Your task to perform on an android device: Open internet settings Image 0: 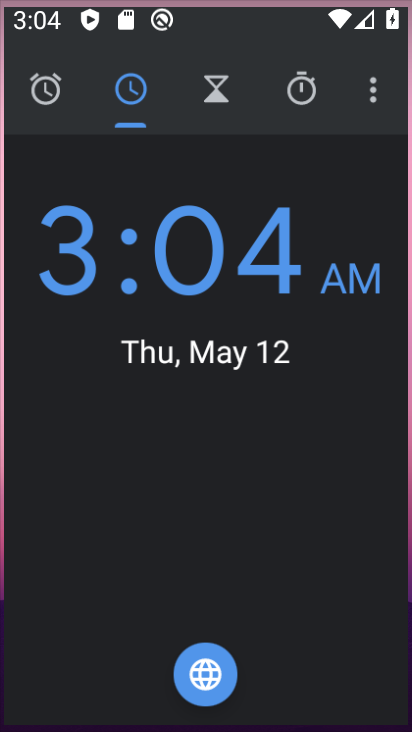
Step 0: click (240, 639)
Your task to perform on an android device: Open internet settings Image 1: 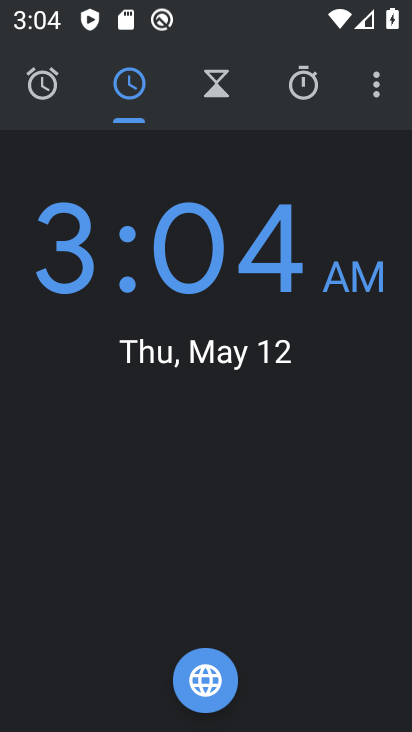
Step 1: press home button
Your task to perform on an android device: Open internet settings Image 2: 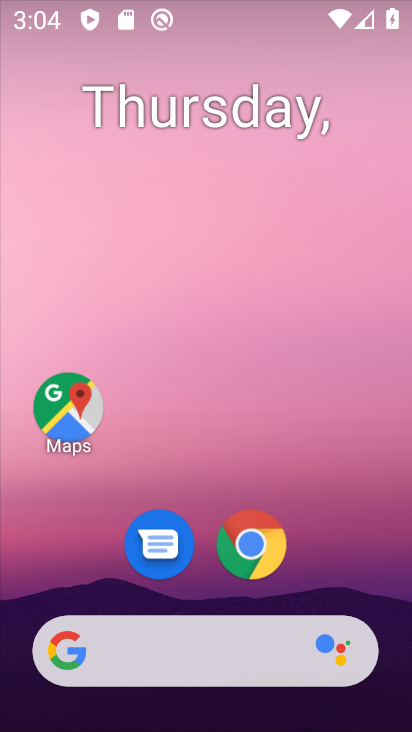
Step 2: drag from (332, 507) to (359, 20)
Your task to perform on an android device: Open internet settings Image 3: 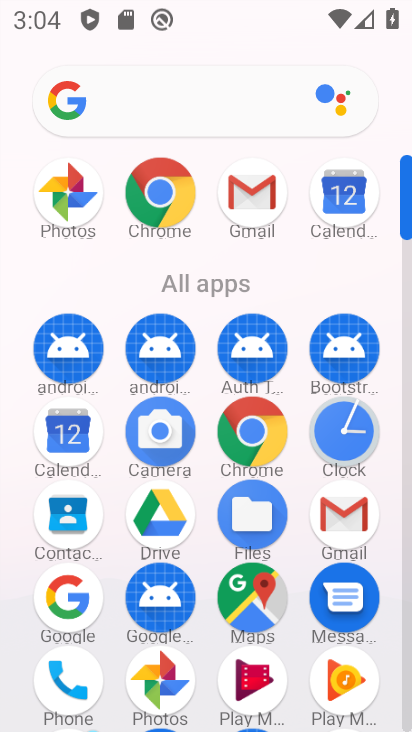
Step 3: drag from (343, 525) to (336, 109)
Your task to perform on an android device: Open internet settings Image 4: 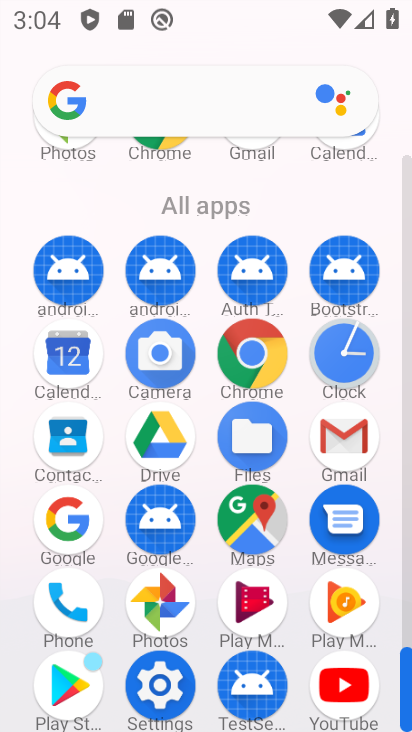
Step 4: click (167, 677)
Your task to perform on an android device: Open internet settings Image 5: 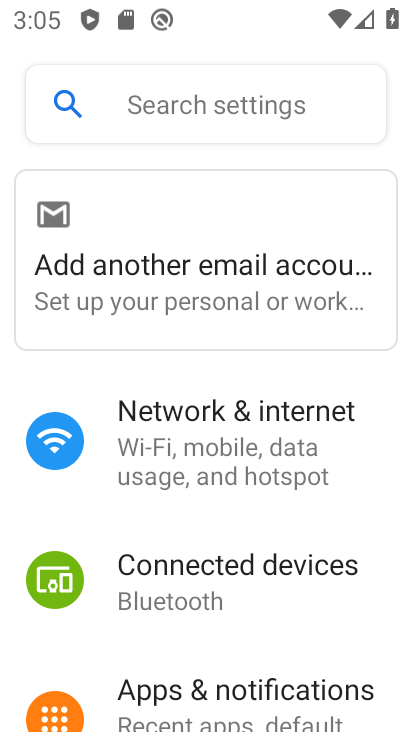
Step 5: click (206, 429)
Your task to perform on an android device: Open internet settings Image 6: 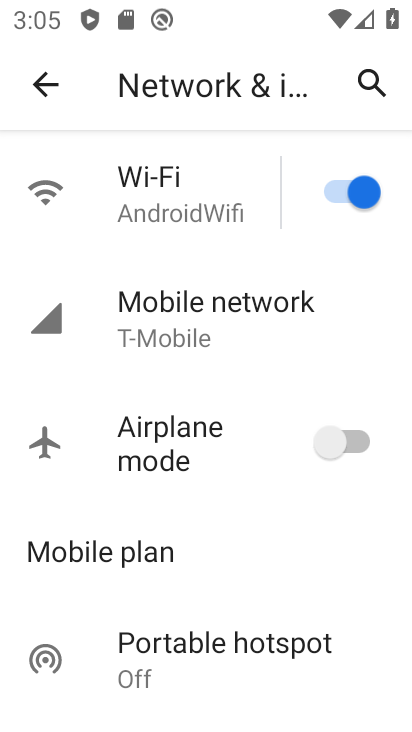
Step 6: drag from (190, 478) to (174, 216)
Your task to perform on an android device: Open internet settings Image 7: 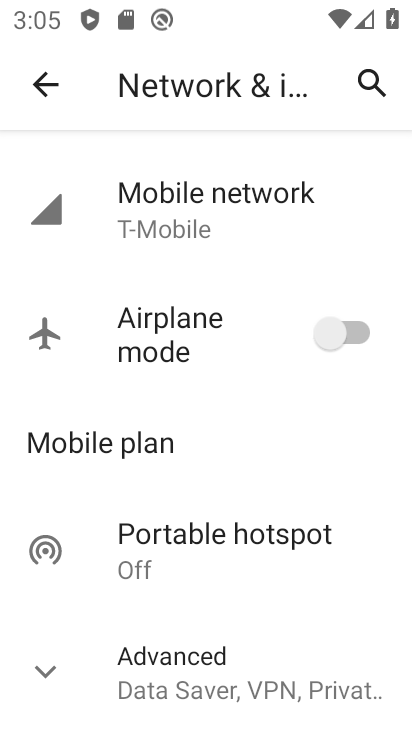
Step 7: drag from (188, 298) to (212, 650)
Your task to perform on an android device: Open internet settings Image 8: 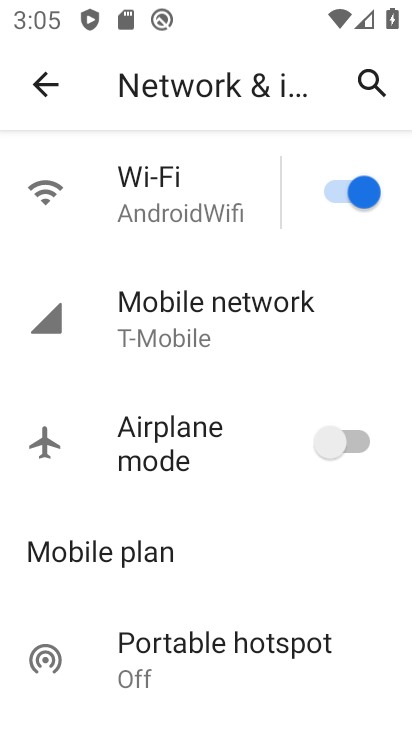
Step 8: drag from (244, 584) to (230, 112)
Your task to perform on an android device: Open internet settings Image 9: 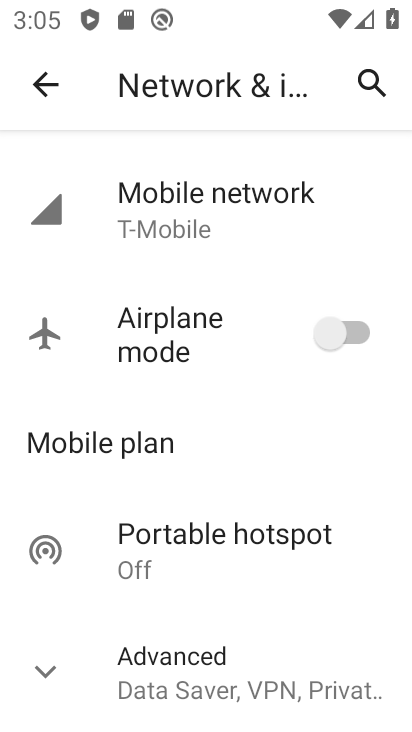
Step 9: drag from (171, 280) to (235, 584)
Your task to perform on an android device: Open internet settings Image 10: 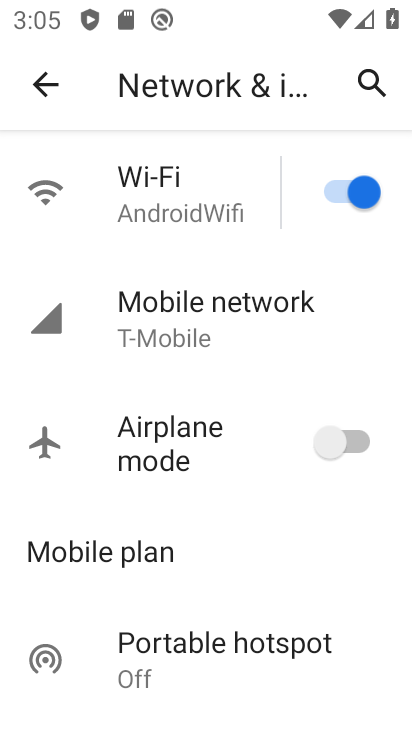
Step 10: click (173, 324)
Your task to perform on an android device: Open internet settings Image 11: 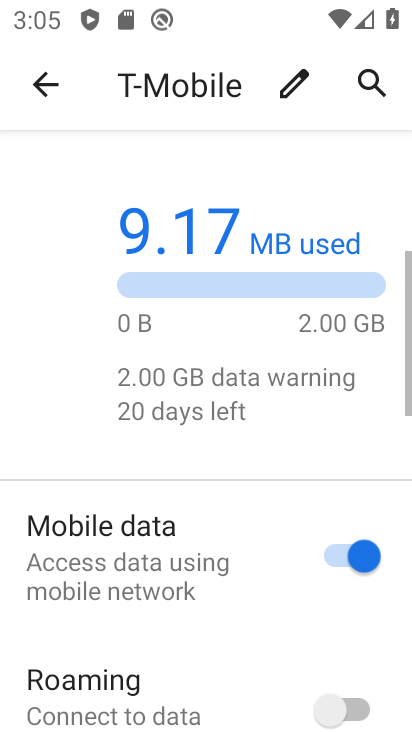
Step 11: task complete